Your task to perform on an android device: snooze an email in the gmail app Image 0: 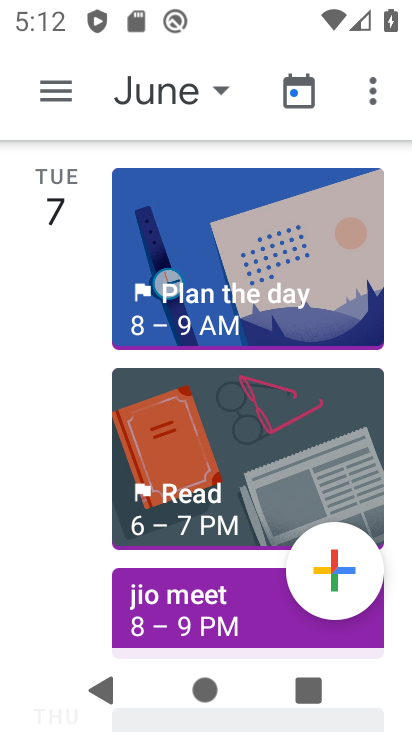
Step 0: press back button
Your task to perform on an android device: snooze an email in the gmail app Image 1: 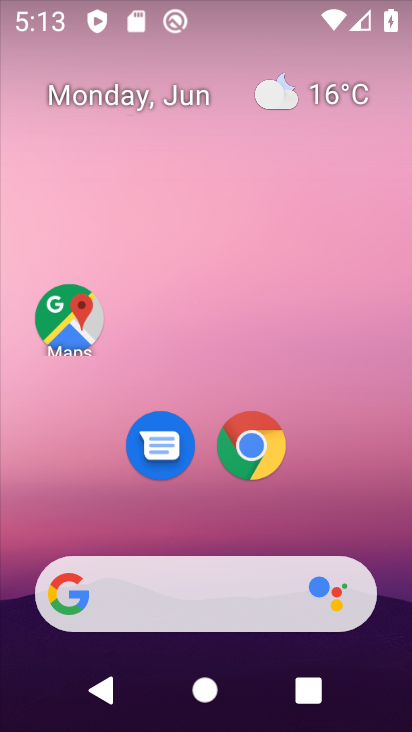
Step 1: drag from (317, 514) to (256, 20)
Your task to perform on an android device: snooze an email in the gmail app Image 2: 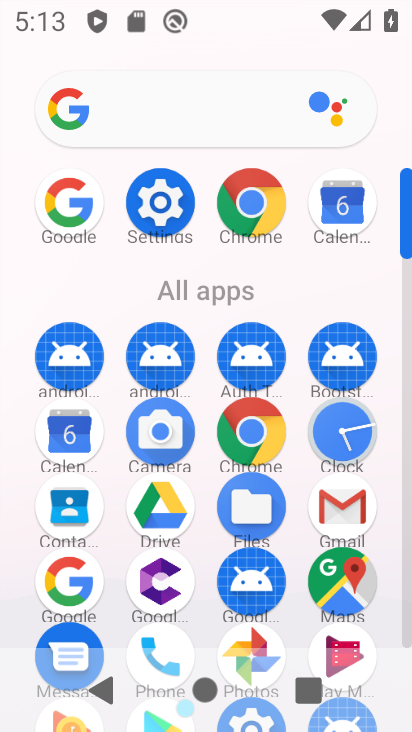
Step 2: click (341, 502)
Your task to perform on an android device: snooze an email in the gmail app Image 3: 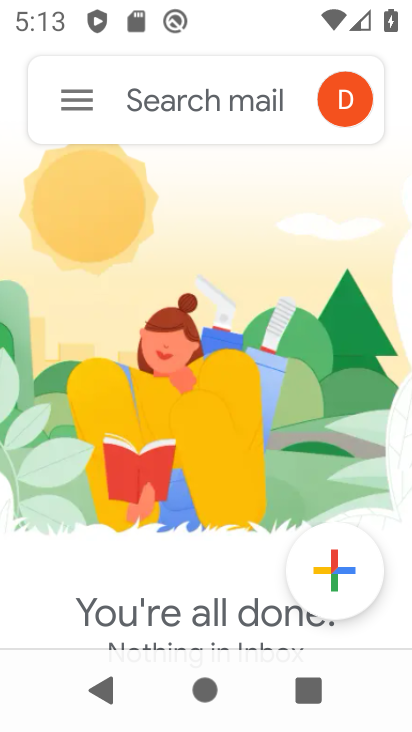
Step 3: click (72, 104)
Your task to perform on an android device: snooze an email in the gmail app Image 4: 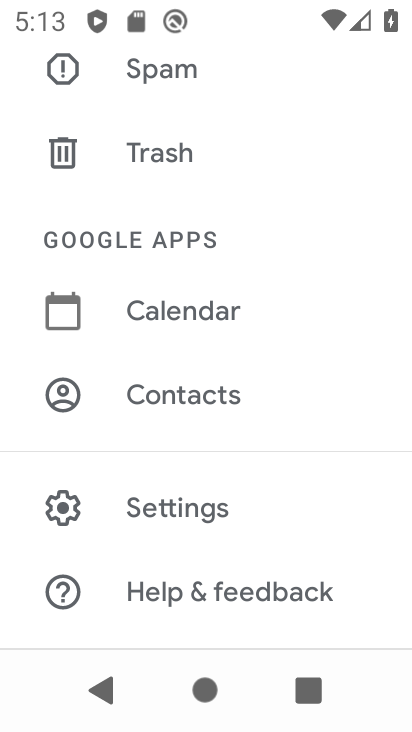
Step 4: drag from (237, 298) to (286, 485)
Your task to perform on an android device: snooze an email in the gmail app Image 5: 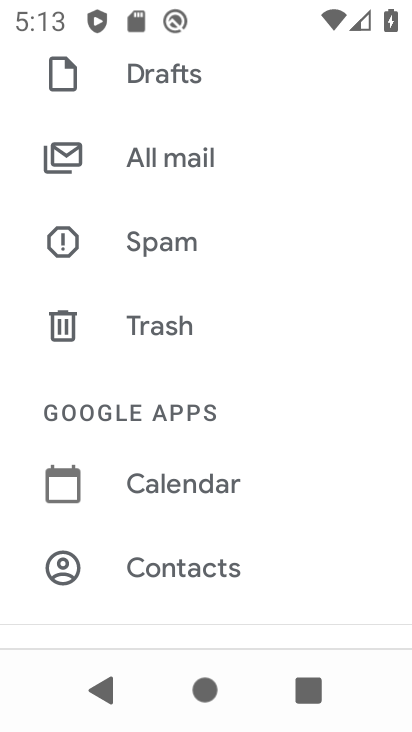
Step 5: click (215, 169)
Your task to perform on an android device: snooze an email in the gmail app Image 6: 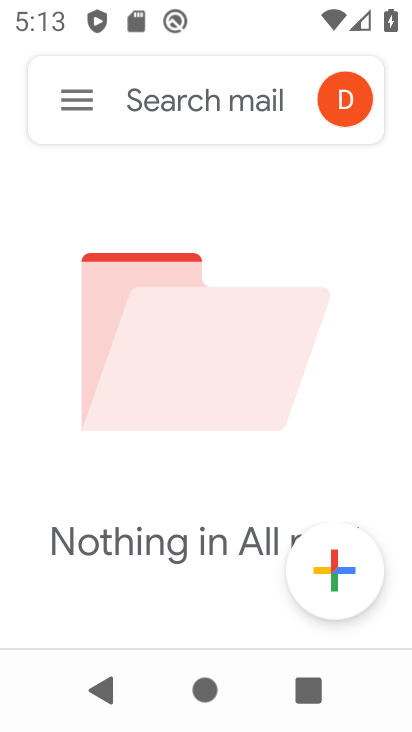
Step 6: click (73, 100)
Your task to perform on an android device: snooze an email in the gmail app Image 7: 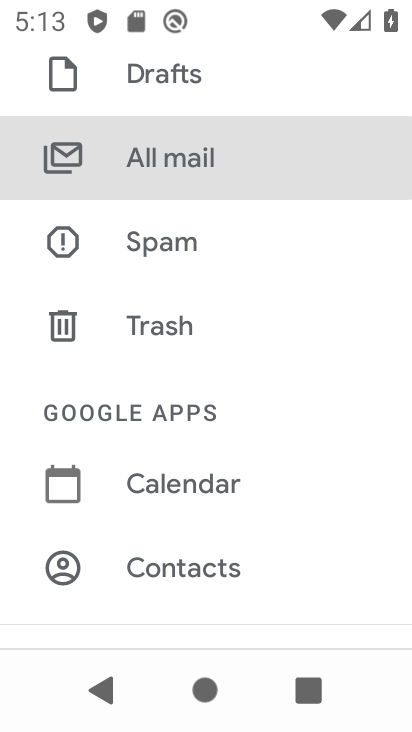
Step 7: drag from (216, 186) to (273, 381)
Your task to perform on an android device: snooze an email in the gmail app Image 8: 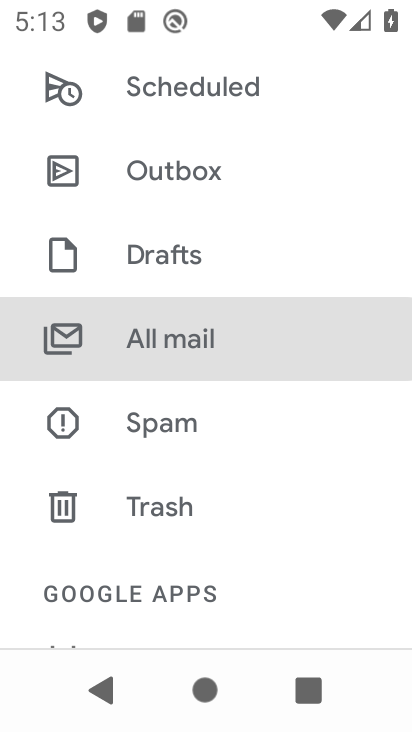
Step 8: drag from (226, 187) to (296, 343)
Your task to perform on an android device: snooze an email in the gmail app Image 9: 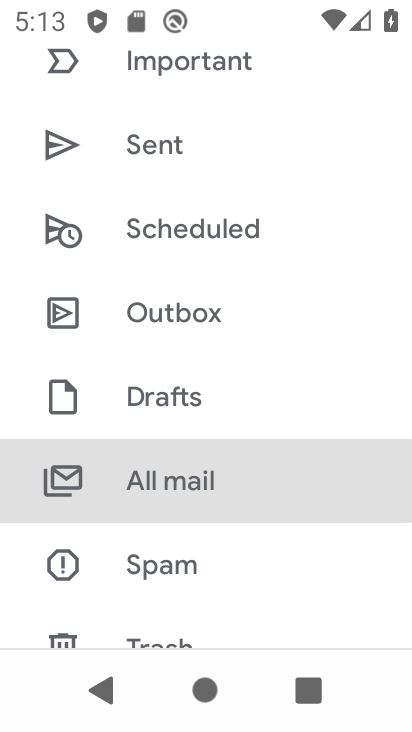
Step 9: drag from (256, 184) to (275, 338)
Your task to perform on an android device: snooze an email in the gmail app Image 10: 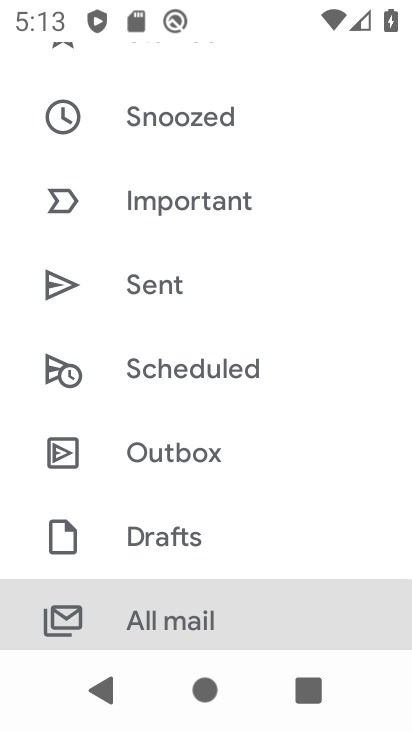
Step 10: drag from (243, 170) to (279, 338)
Your task to perform on an android device: snooze an email in the gmail app Image 11: 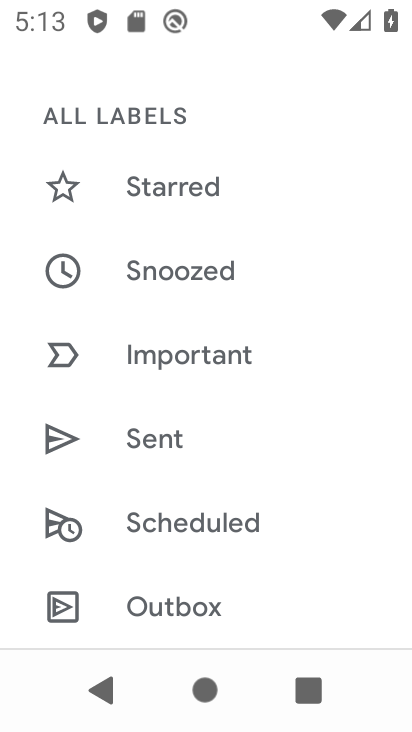
Step 11: drag from (229, 195) to (276, 351)
Your task to perform on an android device: snooze an email in the gmail app Image 12: 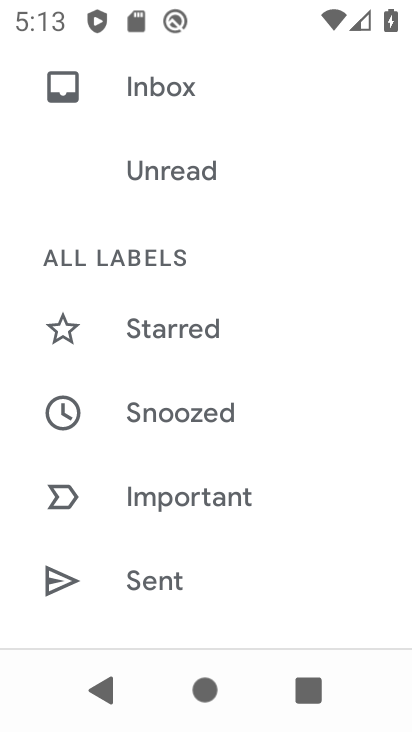
Step 12: drag from (211, 180) to (267, 324)
Your task to perform on an android device: snooze an email in the gmail app Image 13: 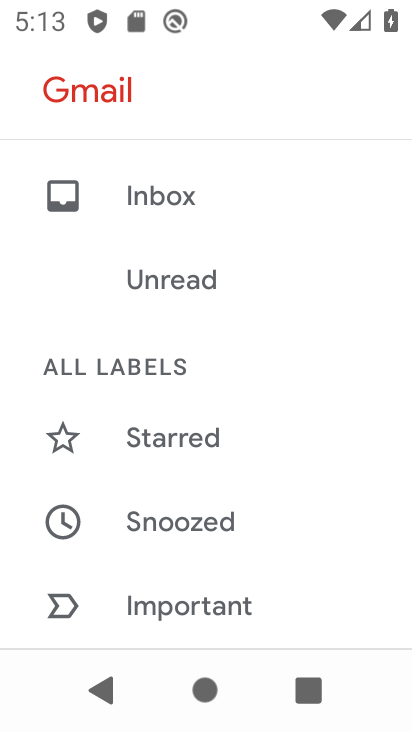
Step 13: drag from (150, 232) to (214, 483)
Your task to perform on an android device: snooze an email in the gmail app Image 14: 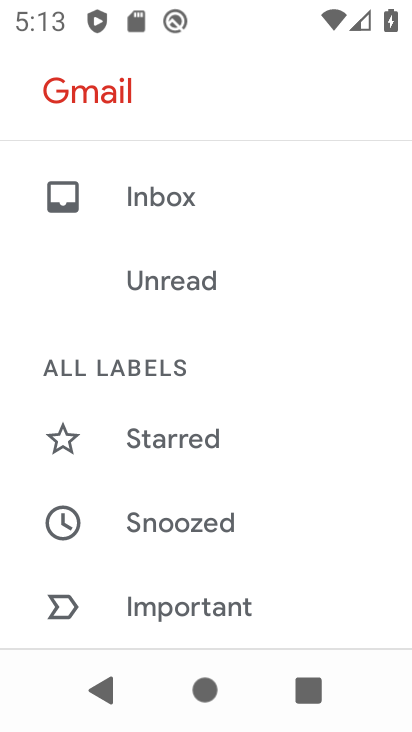
Step 14: click (181, 189)
Your task to perform on an android device: snooze an email in the gmail app Image 15: 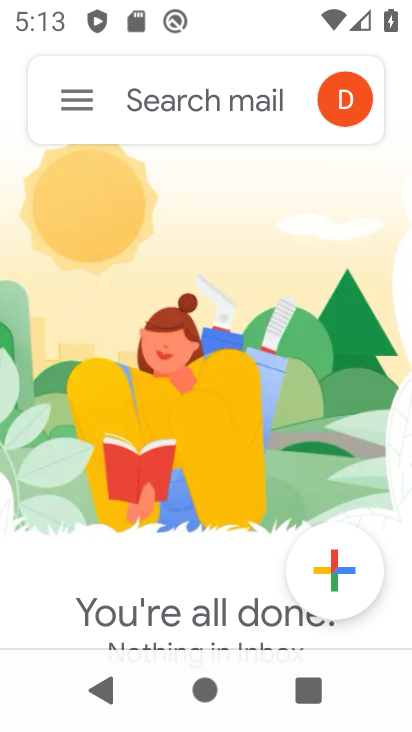
Step 15: task complete